Your task to perform on an android device: Show me recent news Image 0: 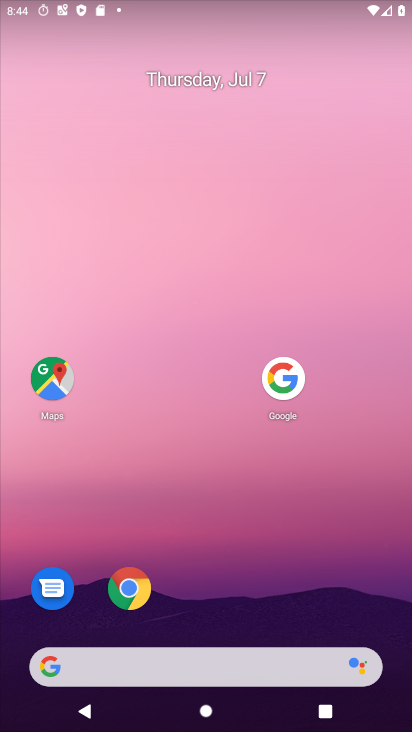
Step 0: click (208, 659)
Your task to perform on an android device: Show me recent news Image 1: 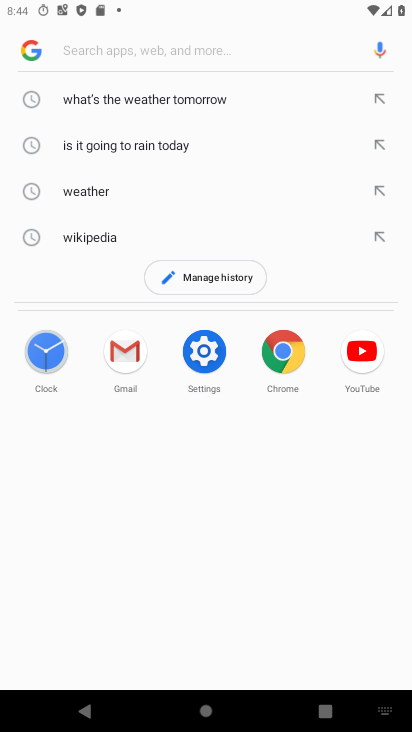
Step 1: type "recent news"
Your task to perform on an android device: Show me recent news Image 2: 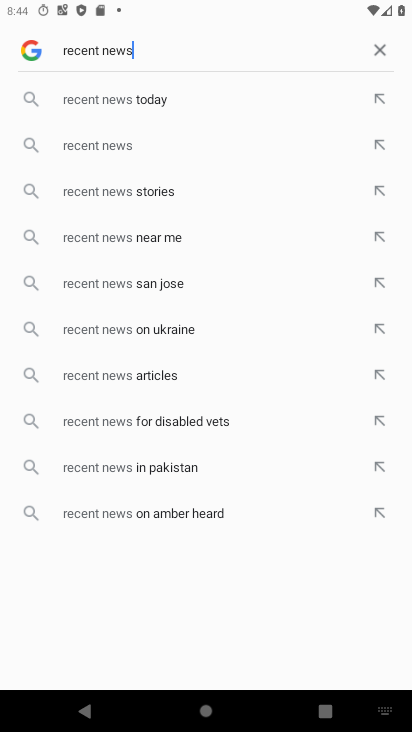
Step 2: click (162, 99)
Your task to perform on an android device: Show me recent news Image 3: 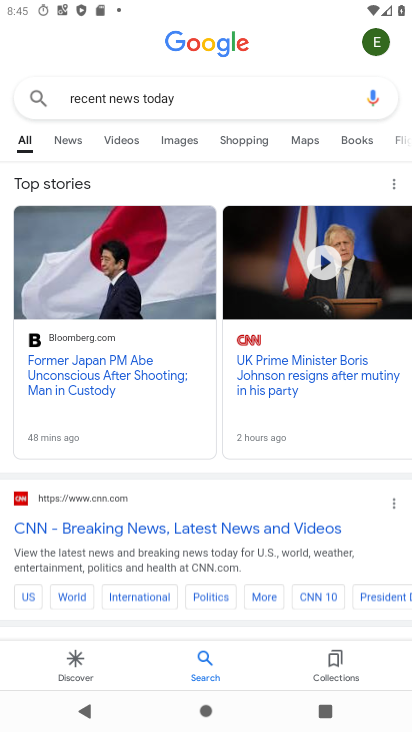
Step 3: task complete